Your task to perform on an android device: turn on improve location accuracy Image 0: 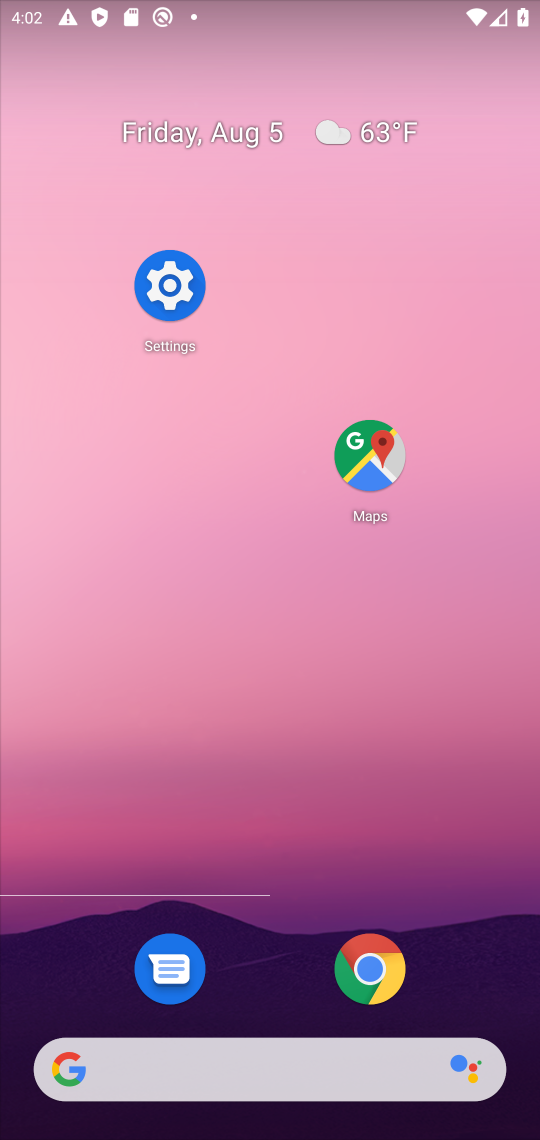
Step 0: click (177, 283)
Your task to perform on an android device: turn on improve location accuracy Image 1: 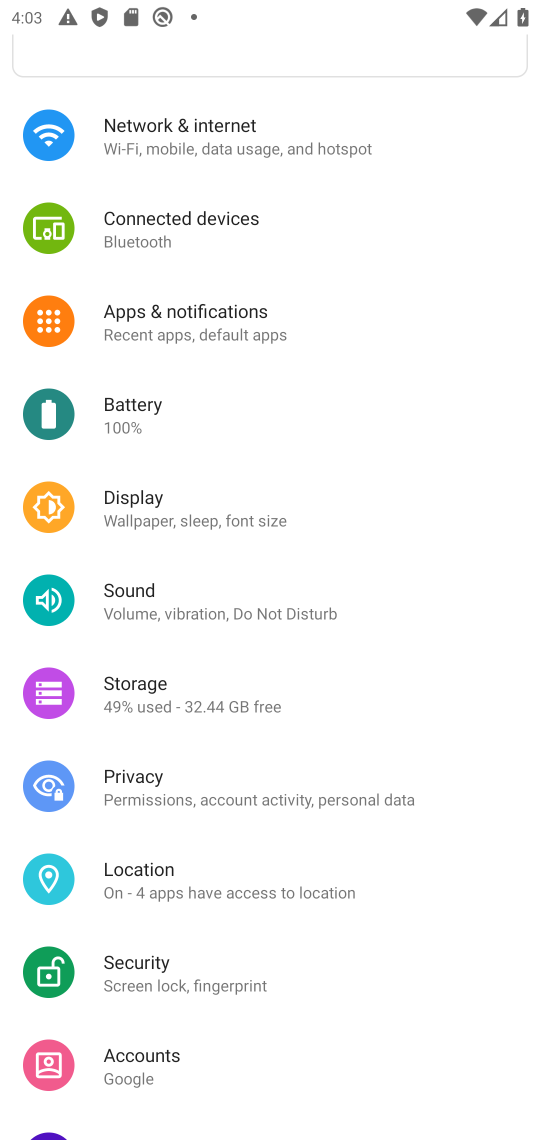
Step 1: click (324, 895)
Your task to perform on an android device: turn on improve location accuracy Image 2: 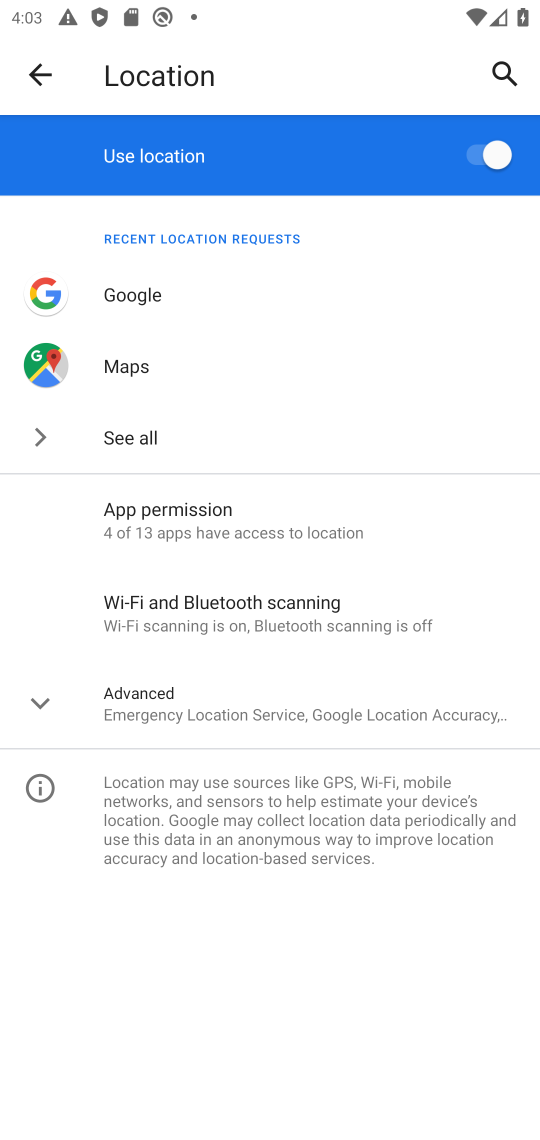
Step 2: click (326, 692)
Your task to perform on an android device: turn on improve location accuracy Image 3: 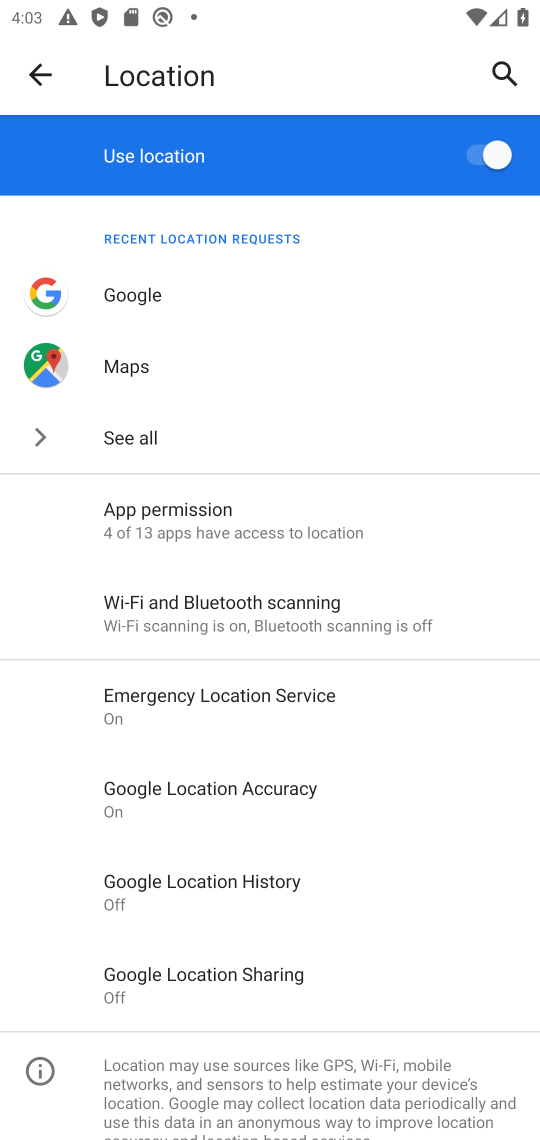
Step 3: click (274, 806)
Your task to perform on an android device: turn on improve location accuracy Image 4: 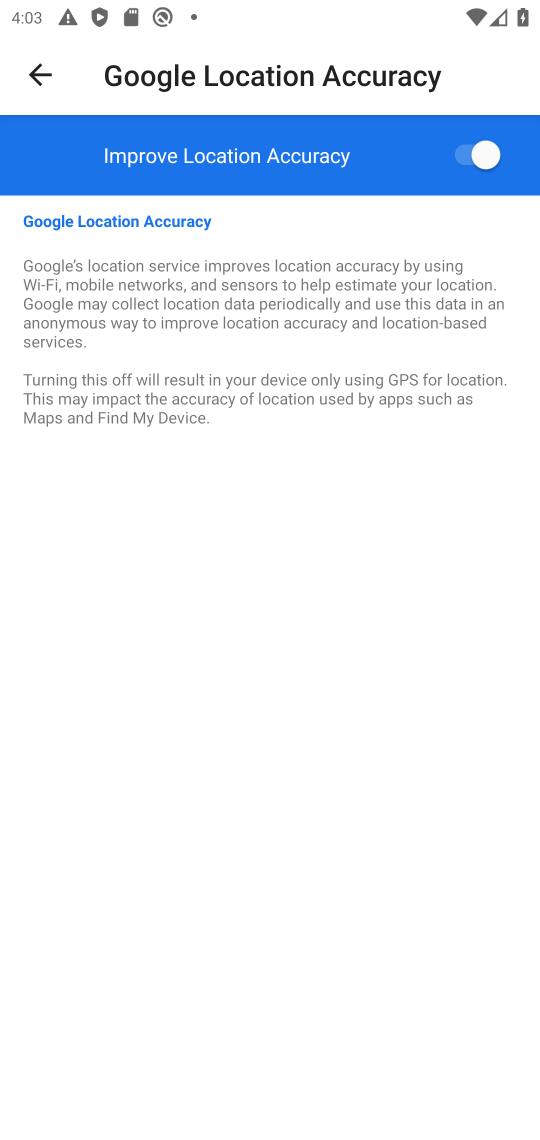
Step 4: task complete